Your task to perform on an android device: Add razer blade to the cart on amazon, then select checkout. Image 0: 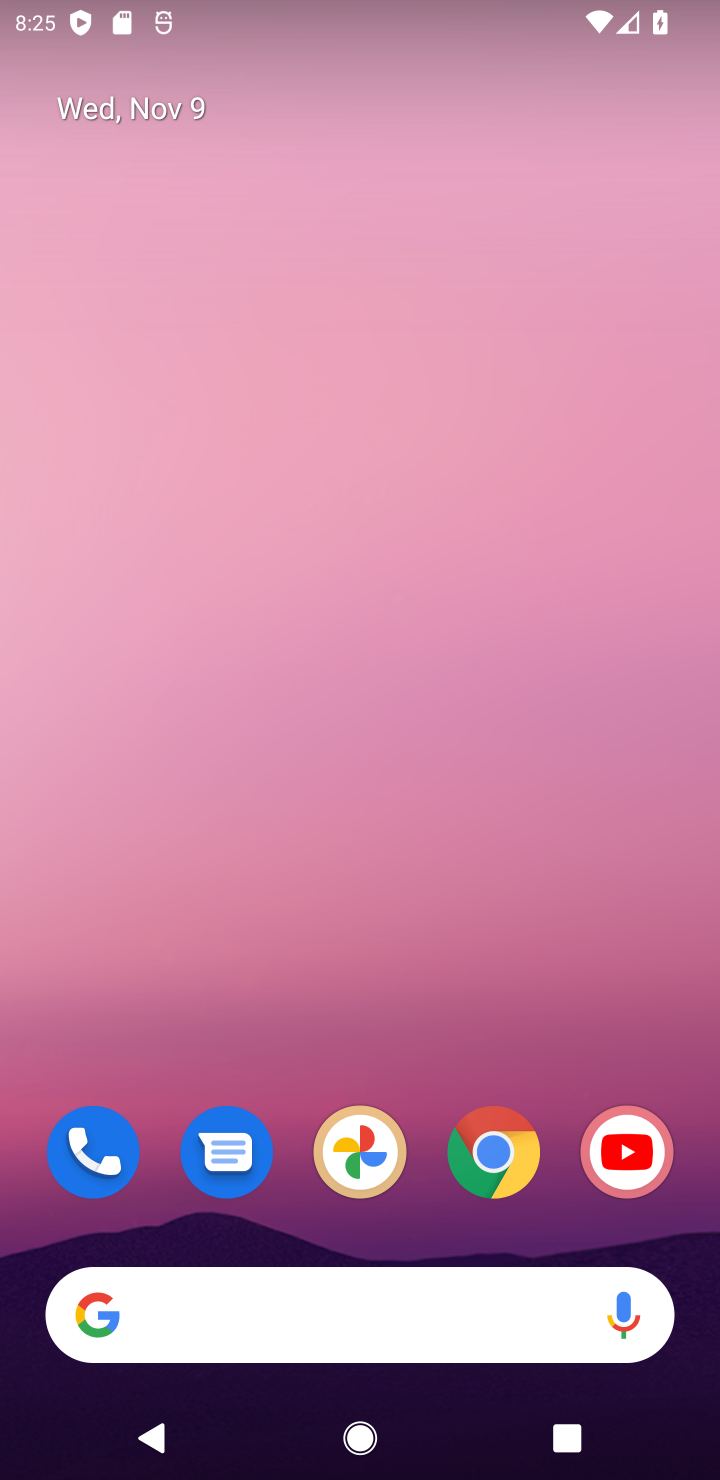
Step 0: click (502, 1131)
Your task to perform on an android device: Add razer blade to the cart on amazon, then select checkout. Image 1: 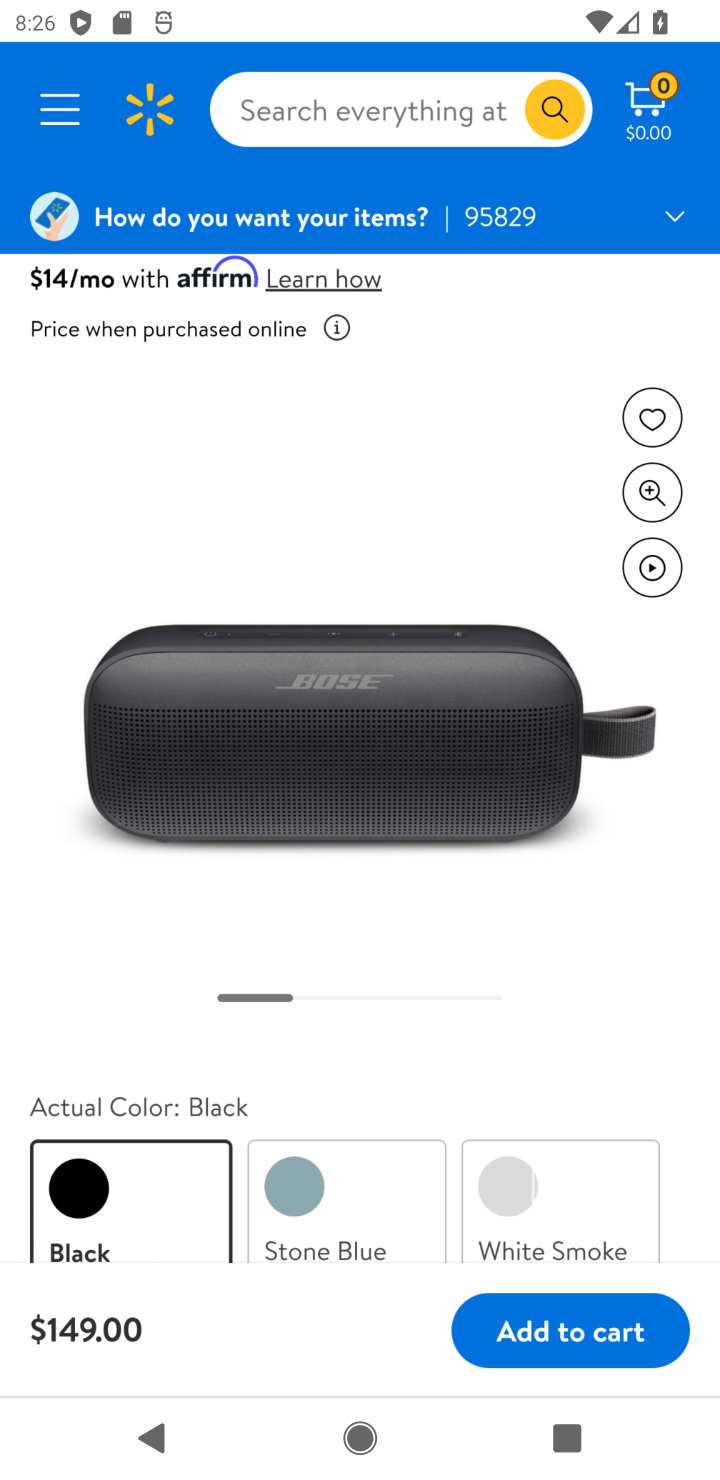
Step 1: click (502, 1131)
Your task to perform on an android device: Add razer blade to the cart on amazon, then select checkout. Image 2: 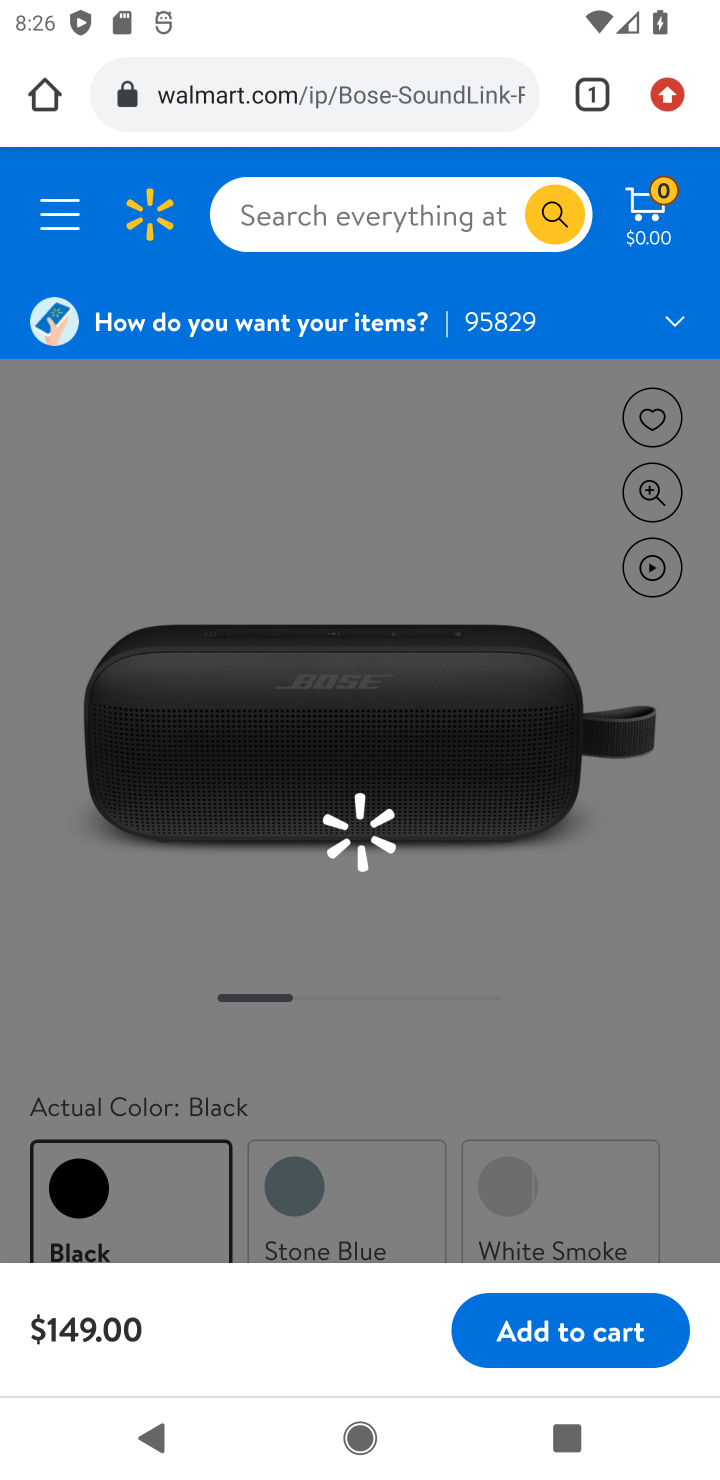
Step 2: click (380, 96)
Your task to perform on an android device: Add razer blade to the cart on amazon, then select checkout. Image 3: 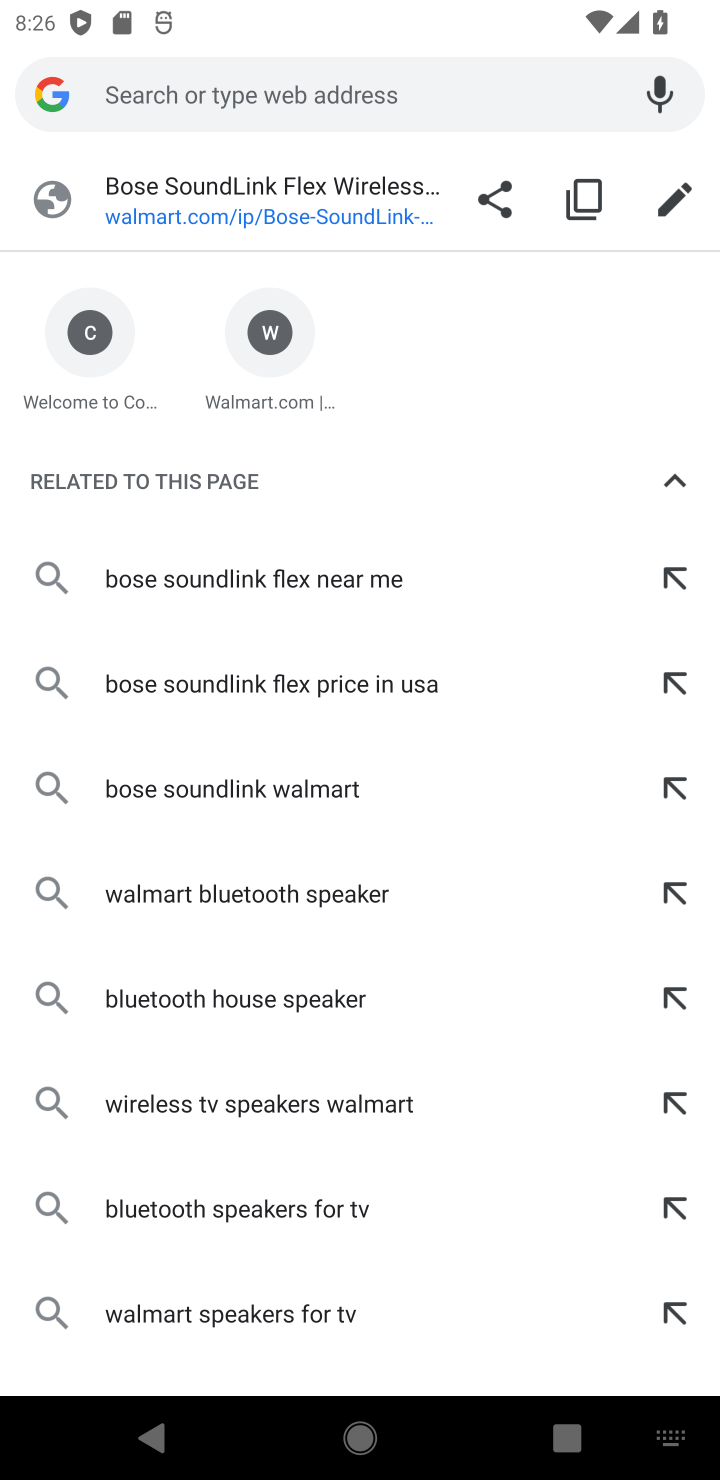
Step 3: type "amazon"
Your task to perform on an android device: Add razer blade to the cart on amazon, then select checkout. Image 4: 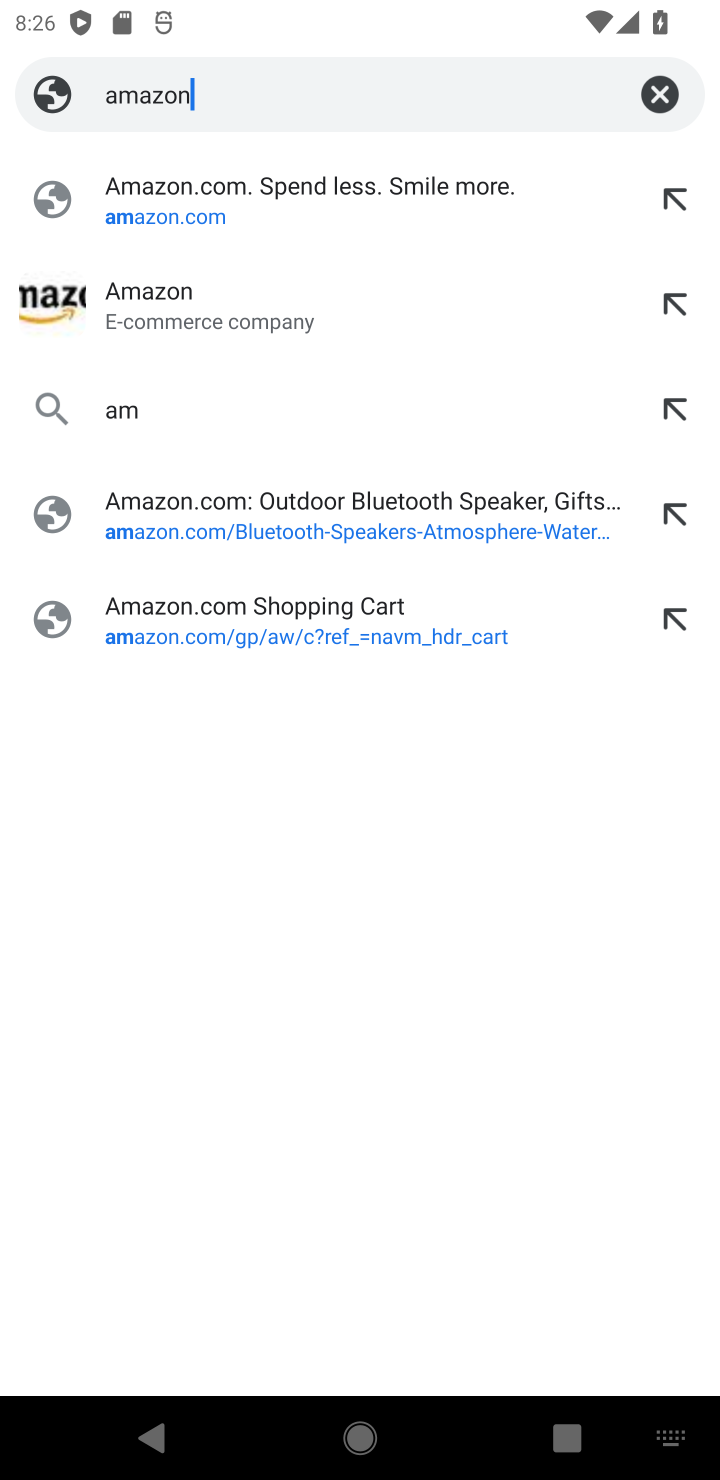
Step 4: press enter
Your task to perform on an android device: Add razer blade to the cart on amazon, then select checkout. Image 5: 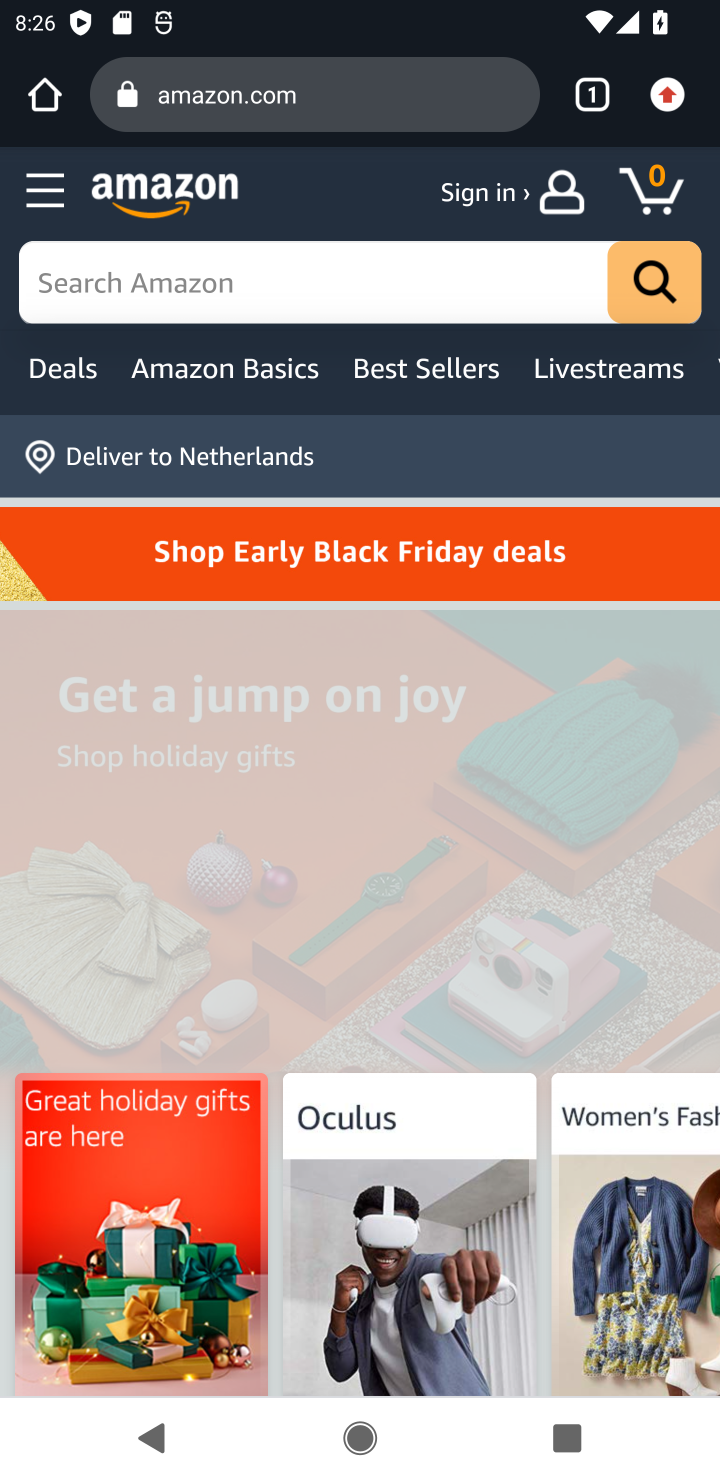
Step 5: click (301, 273)
Your task to perform on an android device: Add razer blade to the cart on amazon, then select checkout. Image 6: 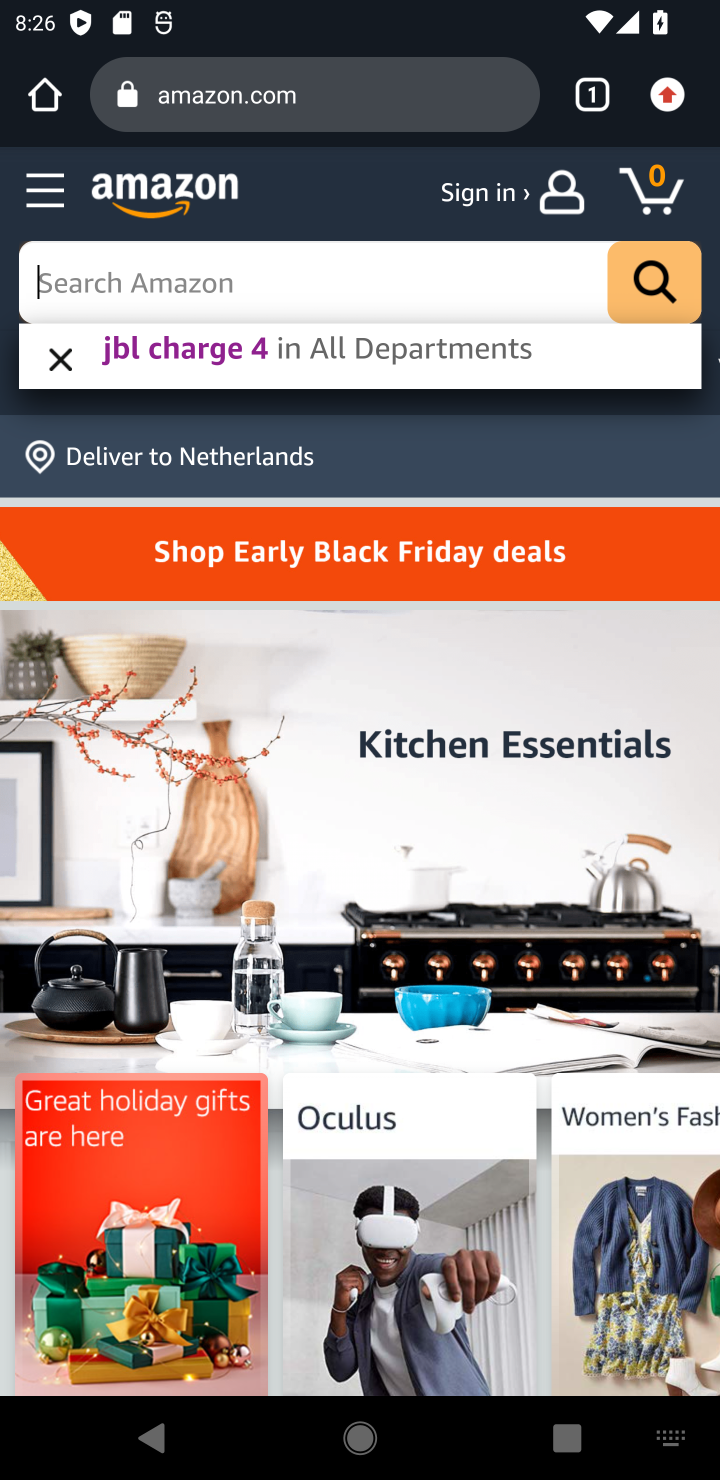
Step 6: press enter
Your task to perform on an android device: Add razer blade to the cart on amazon, then select checkout. Image 7: 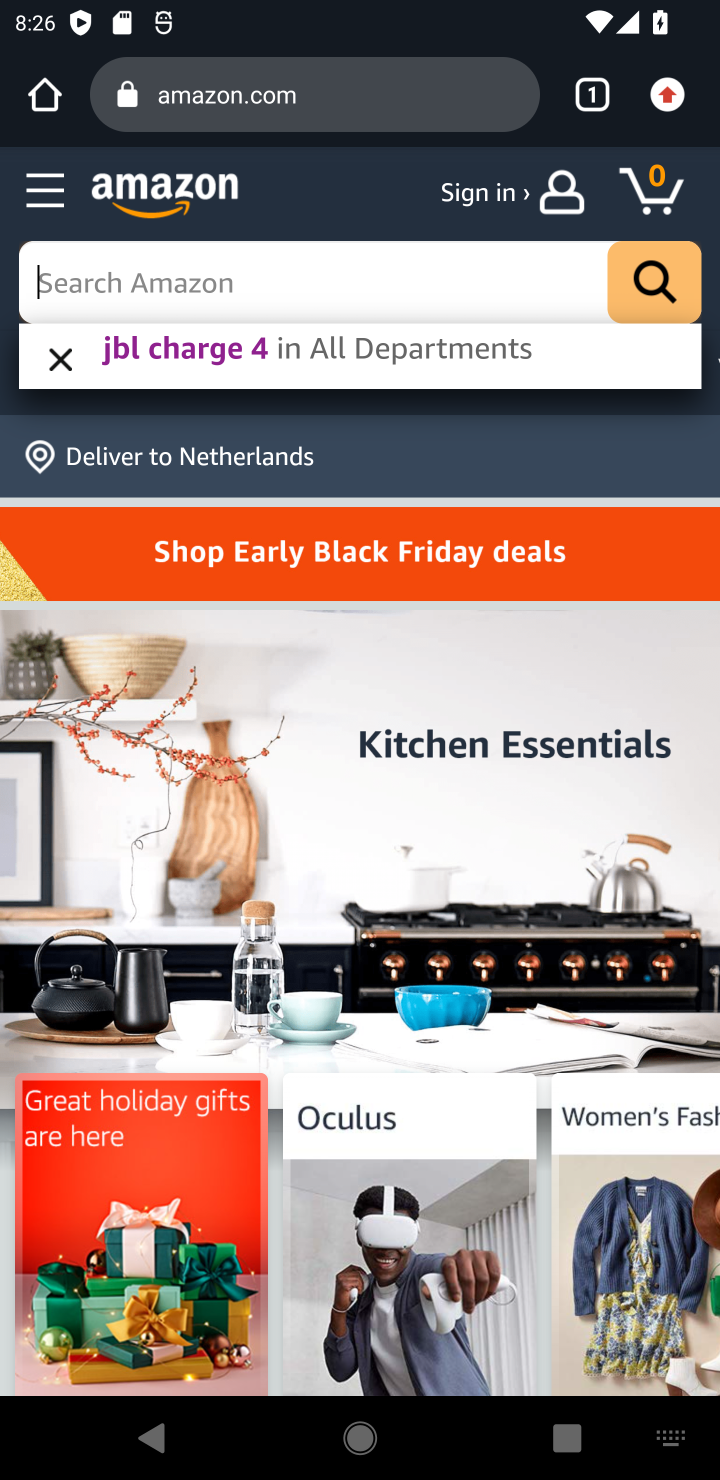
Step 7: type " razer blade"
Your task to perform on an android device: Add razer blade to the cart on amazon, then select checkout. Image 8: 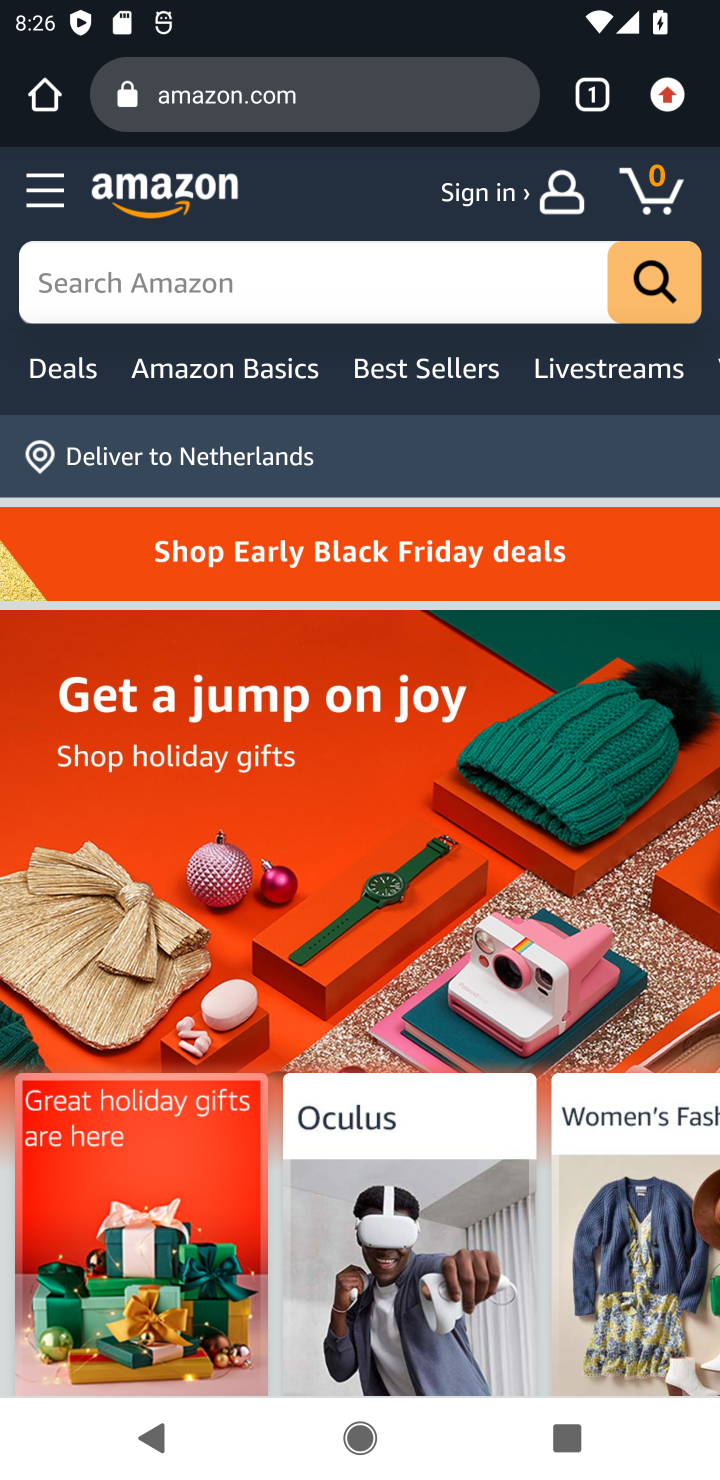
Step 8: click (181, 291)
Your task to perform on an android device: Add razer blade to the cart on amazon, then select checkout. Image 9: 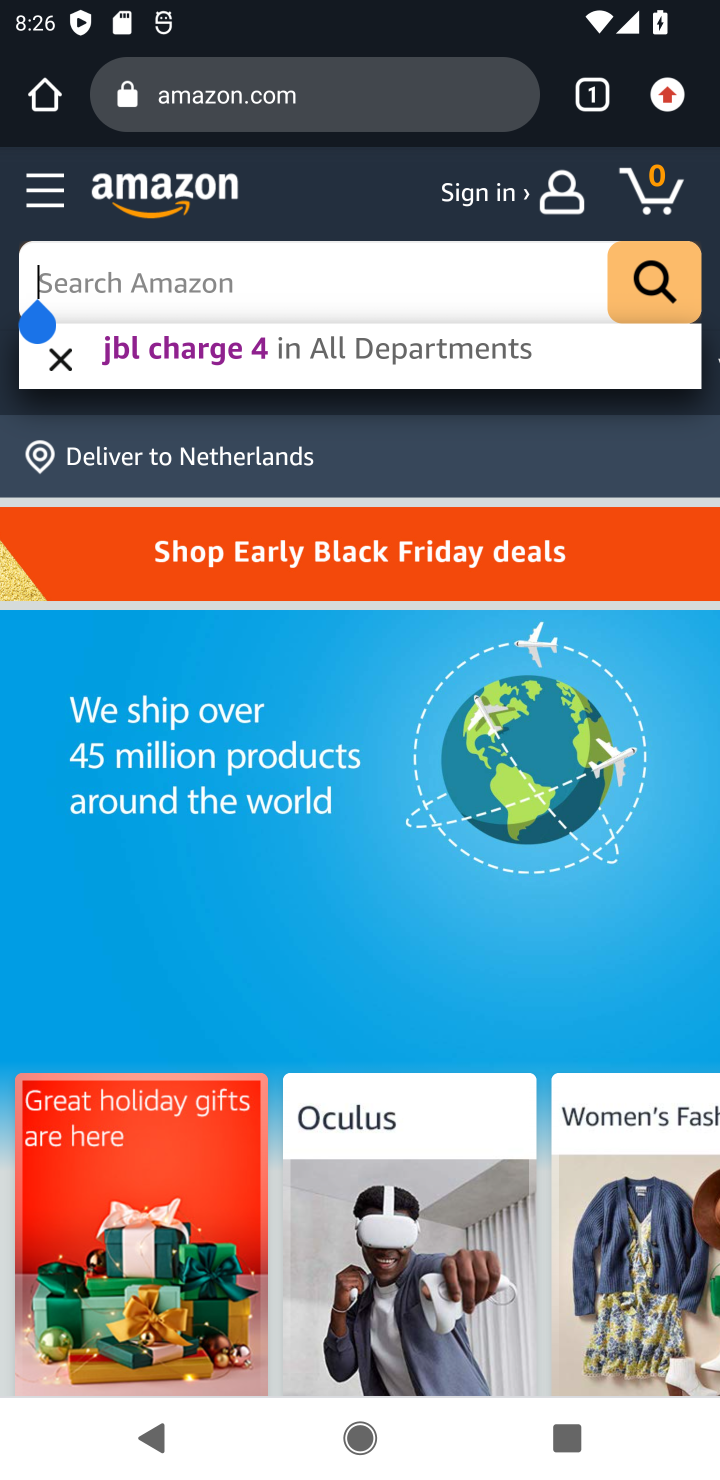
Step 9: press enter
Your task to perform on an android device: Add razer blade to the cart on amazon, then select checkout. Image 10: 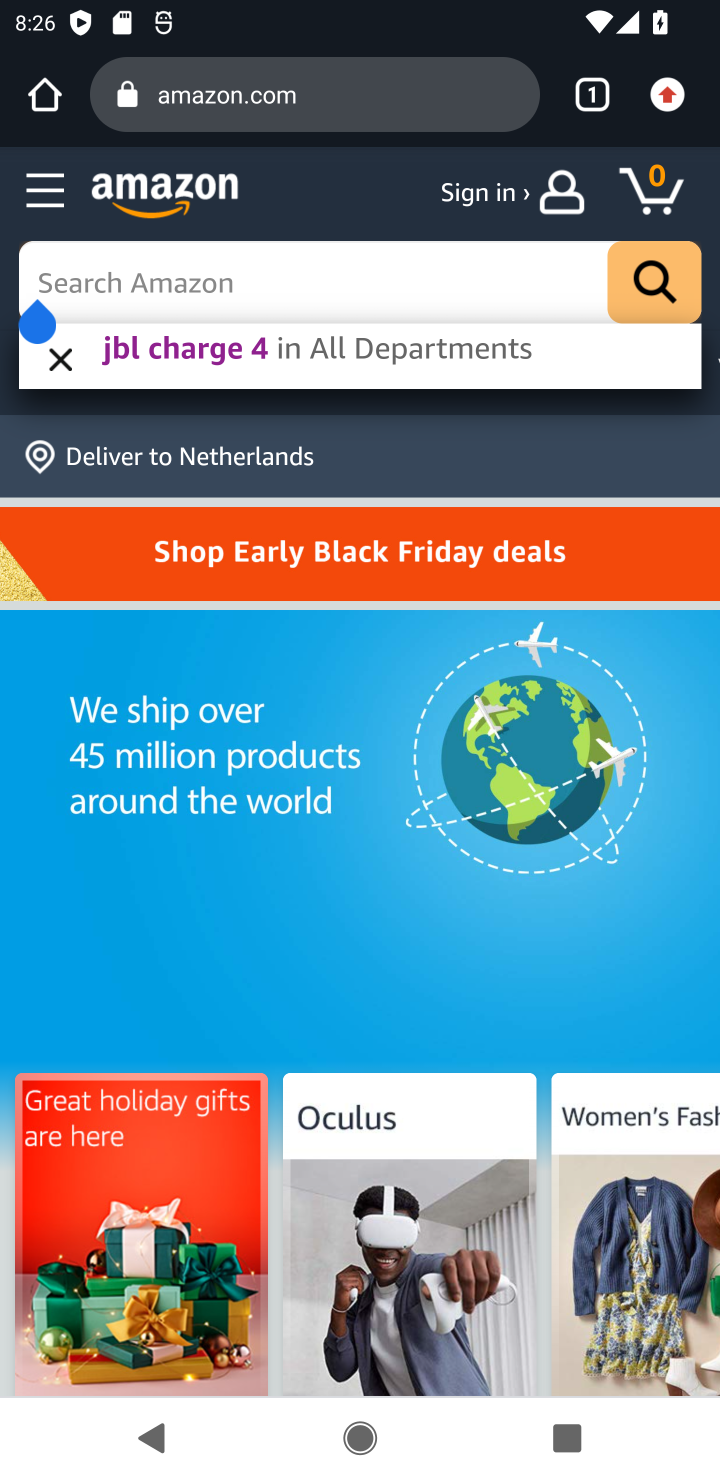
Step 10: type " razer blade"
Your task to perform on an android device: Add razer blade to the cart on amazon, then select checkout. Image 11: 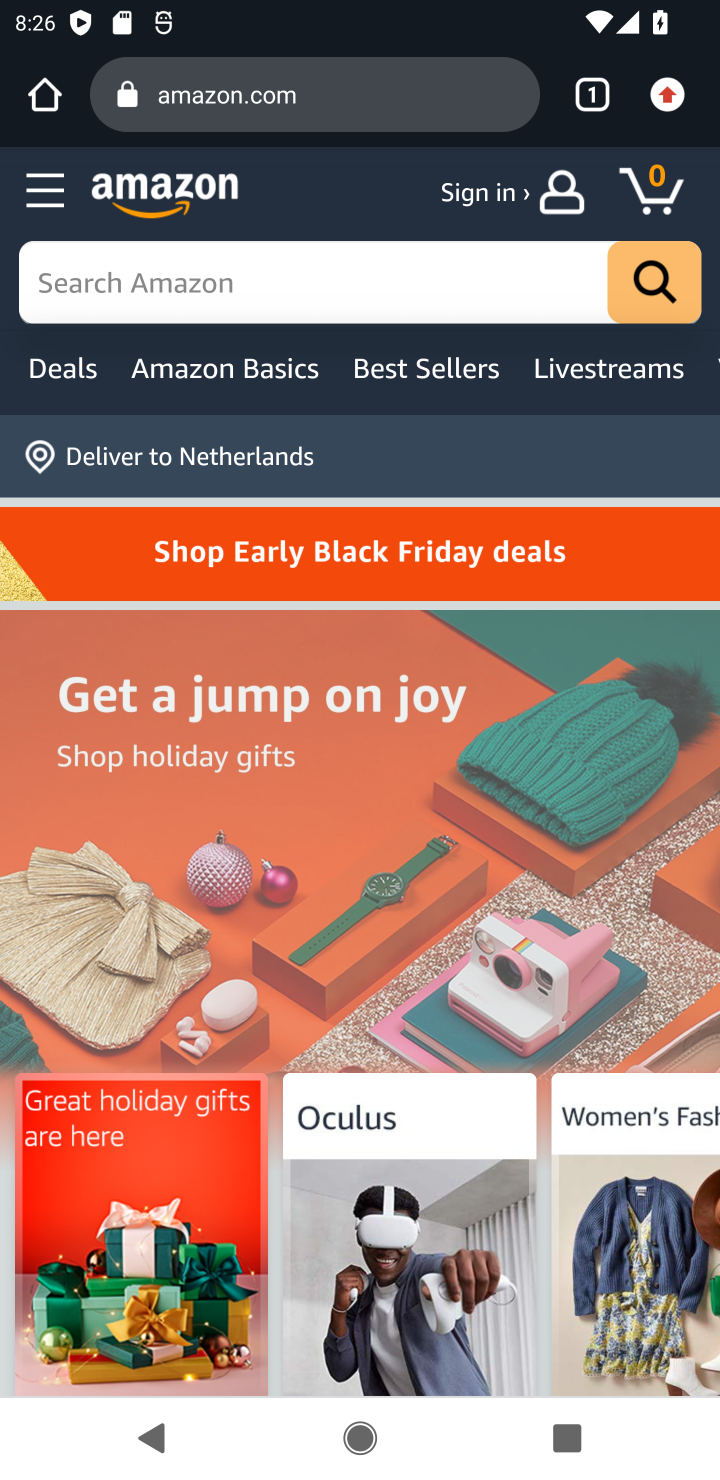
Step 11: click (213, 281)
Your task to perform on an android device: Add razer blade to the cart on amazon, then select checkout. Image 12: 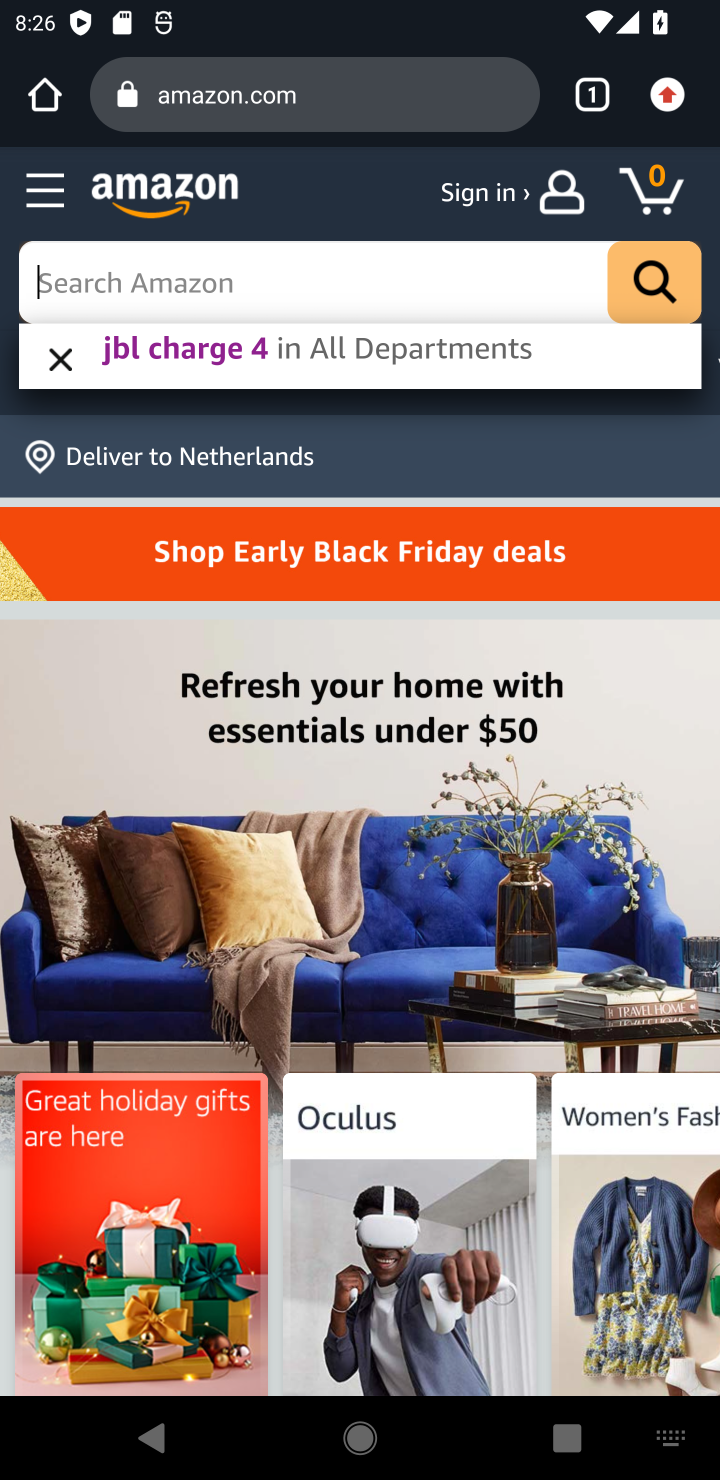
Step 12: press enter
Your task to perform on an android device: Add razer blade to the cart on amazon, then select checkout. Image 13: 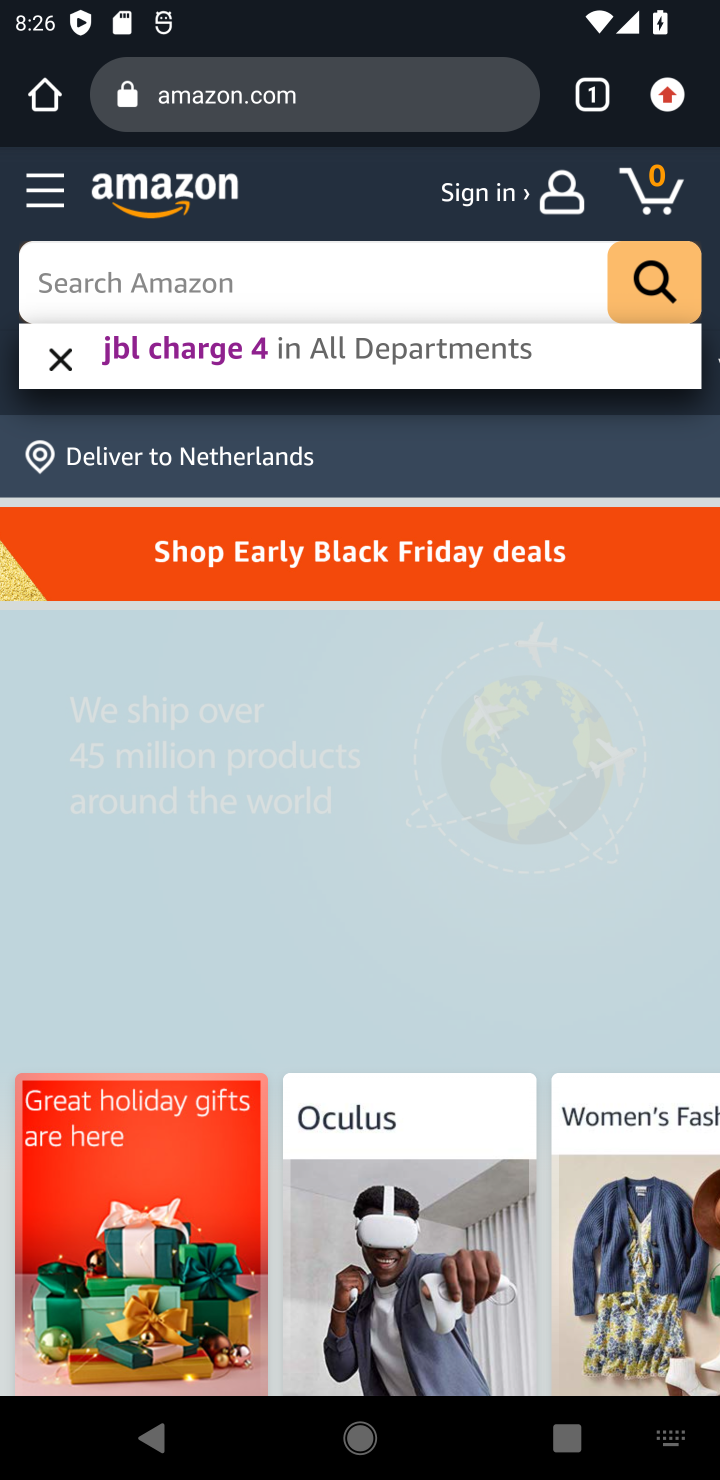
Step 13: type " razer blade"
Your task to perform on an android device: Add razer blade to the cart on amazon, then select checkout. Image 14: 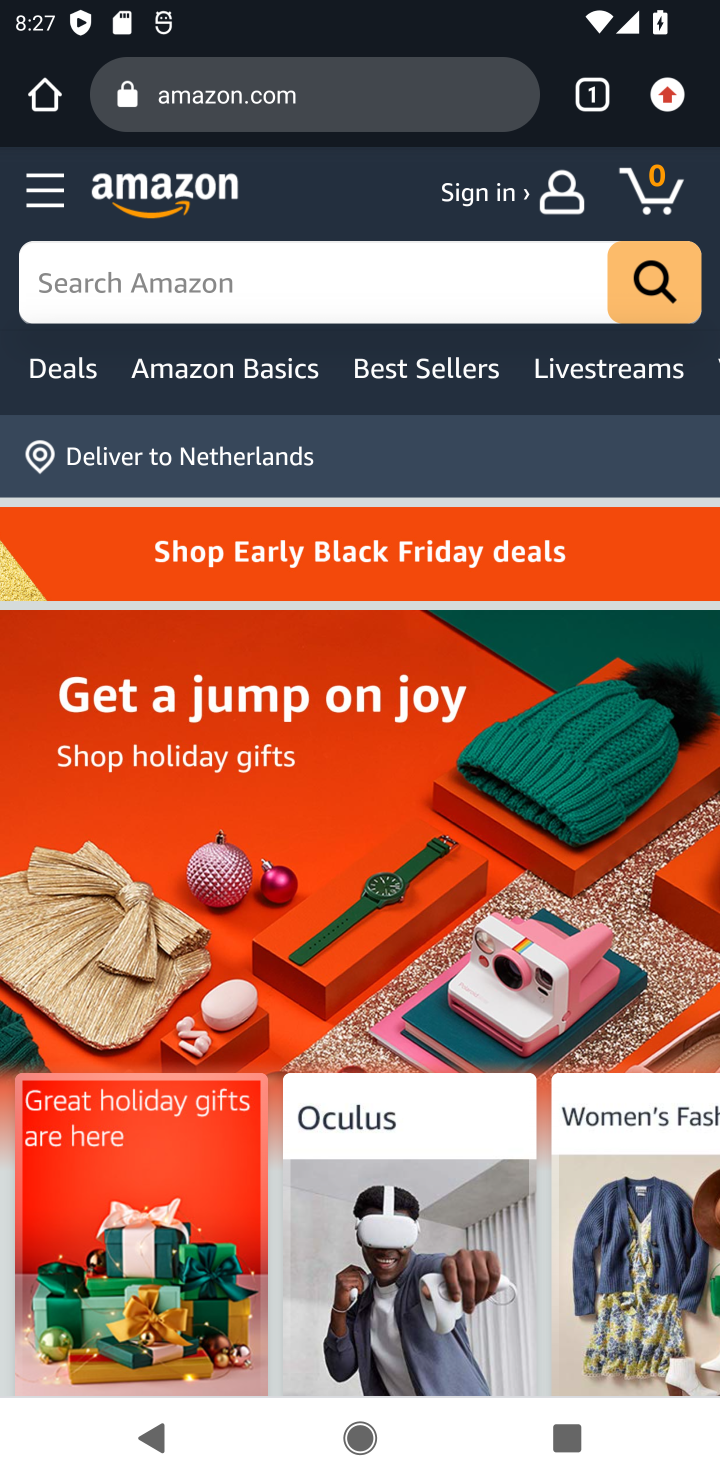
Step 14: click (59, 290)
Your task to perform on an android device: Add razer blade to the cart on amazon, then select checkout. Image 15: 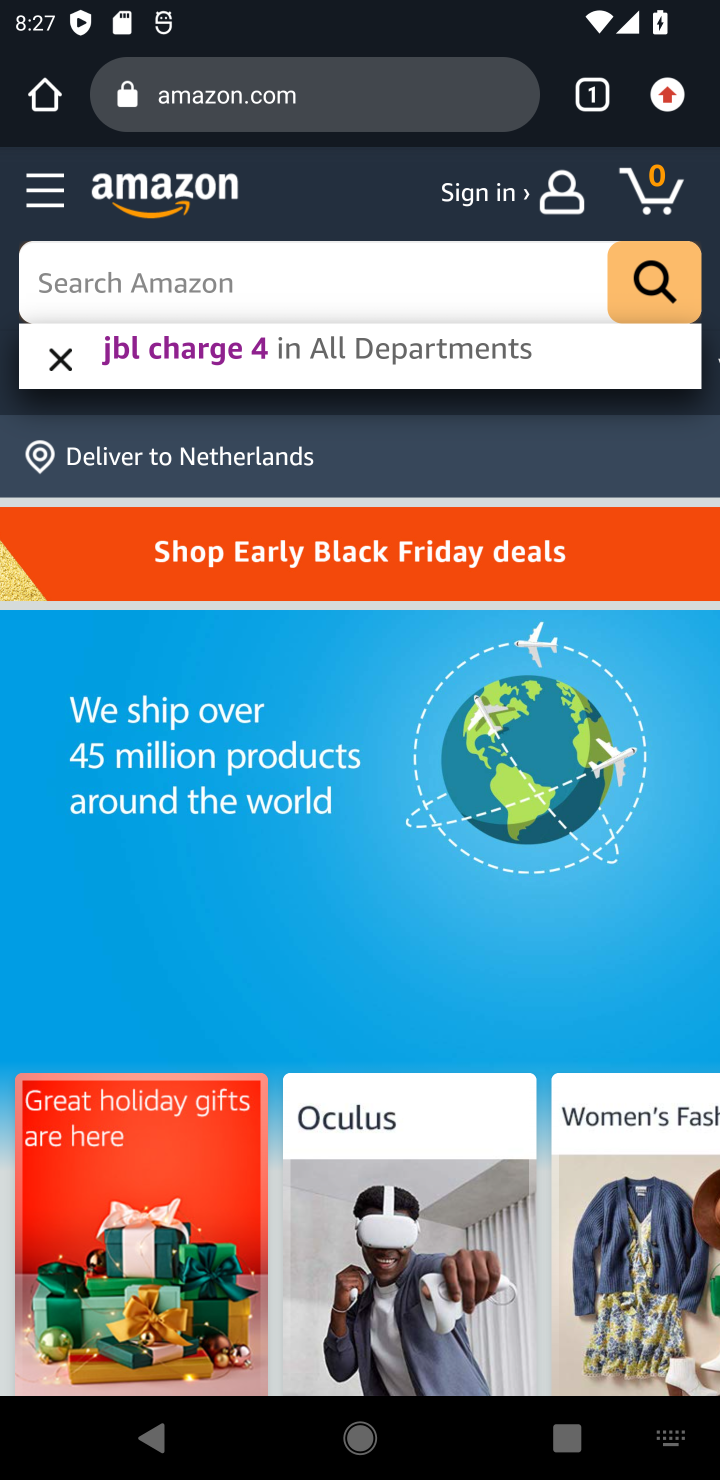
Step 15: type " razer blade"
Your task to perform on an android device: Add razer blade to the cart on amazon, then select checkout. Image 16: 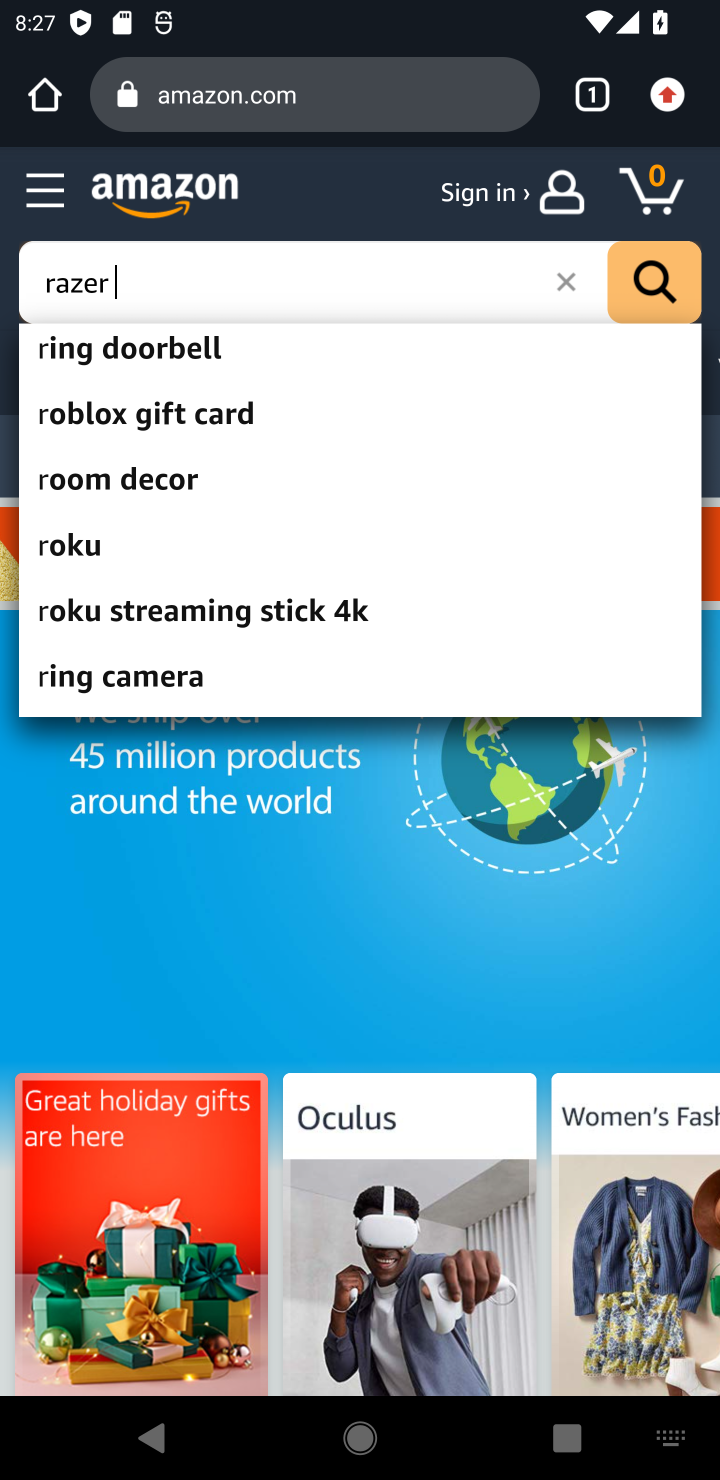
Step 16: press enter
Your task to perform on an android device: Add razer blade to the cart on amazon, then select checkout. Image 17: 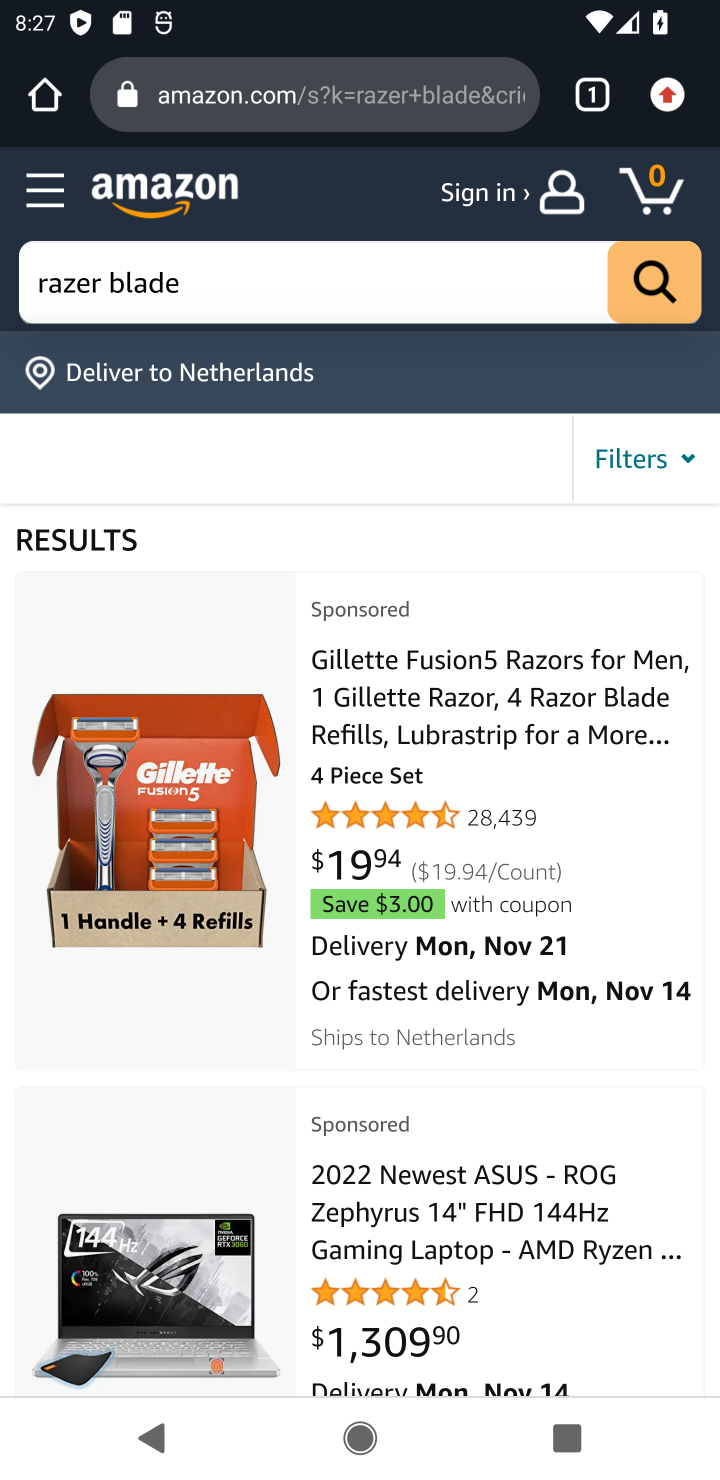
Step 17: task complete